Your task to perform on an android device: Open display settings Image 0: 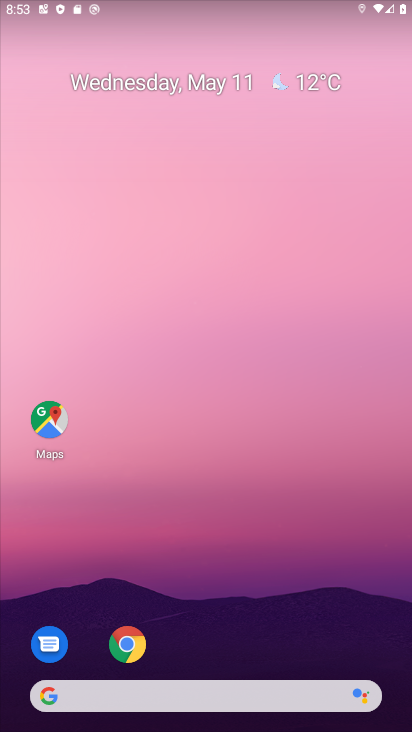
Step 0: drag from (220, 623) to (142, 106)
Your task to perform on an android device: Open display settings Image 1: 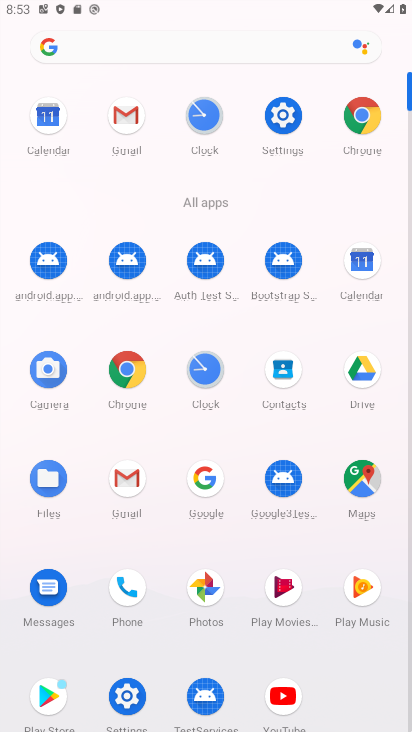
Step 1: click (134, 690)
Your task to perform on an android device: Open display settings Image 2: 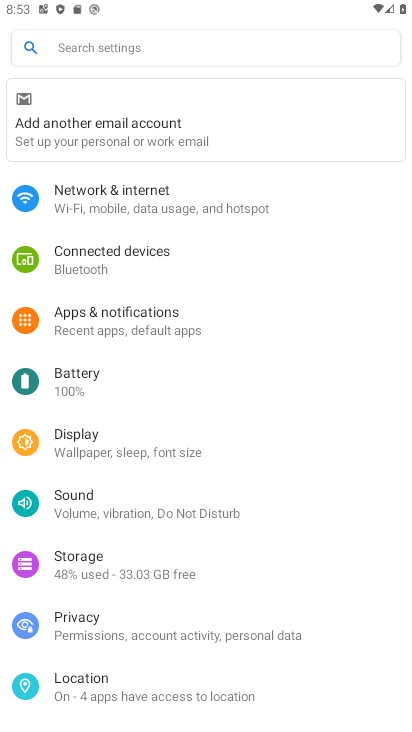
Step 2: click (113, 438)
Your task to perform on an android device: Open display settings Image 3: 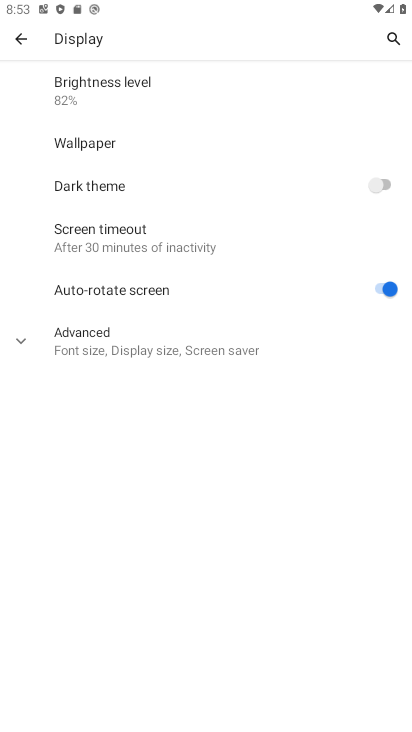
Step 3: click (129, 358)
Your task to perform on an android device: Open display settings Image 4: 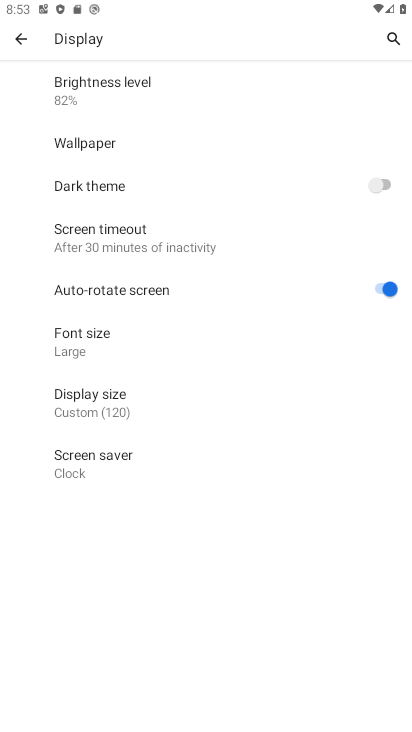
Step 4: task complete